Your task to perform on an android device: Go to Maps Image 0: 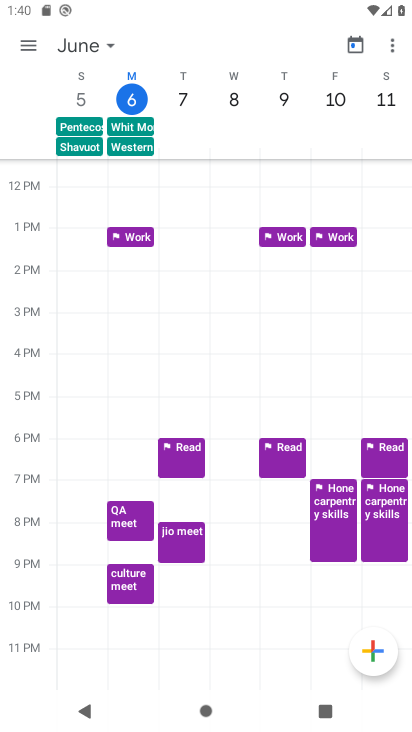
Step 0: press home button
Your task to perform on an android device: Go to Maps Image 1: 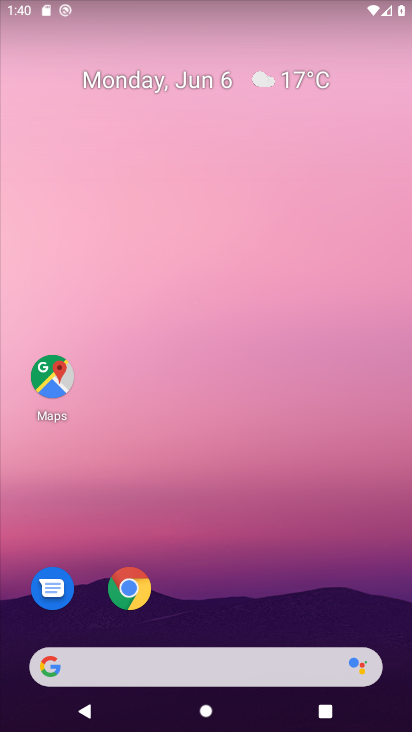
Step 1: click (47, 378)
Your task to perform on an android device: Go to Maps Image 2: 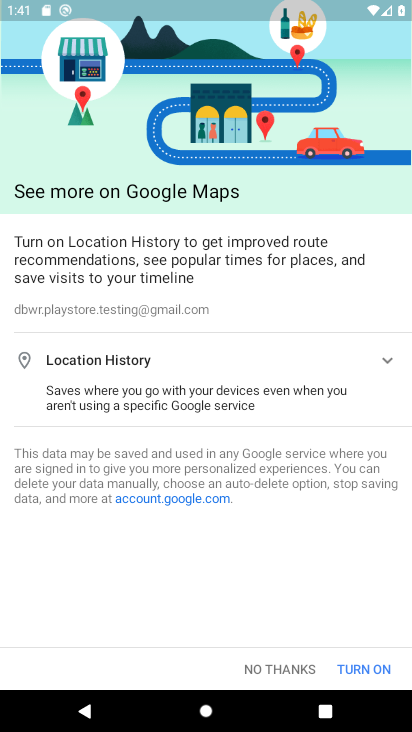
Step 2: click (290, 668)
Your task to perform on an android device: Go to Maps Image 3: 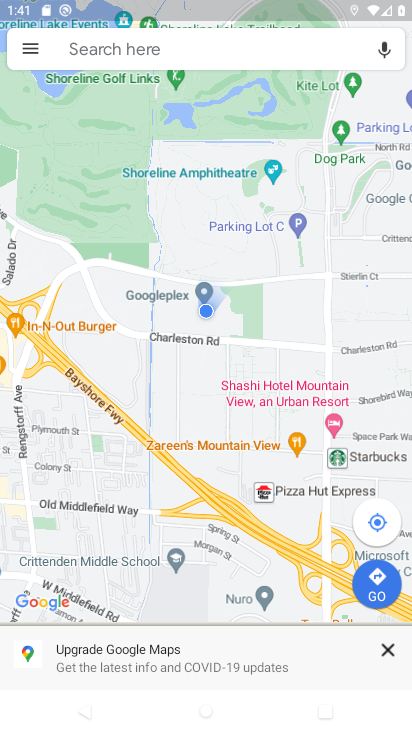
Step 3: task complete